Your task to perform on an android device: Open location settings Image 0: 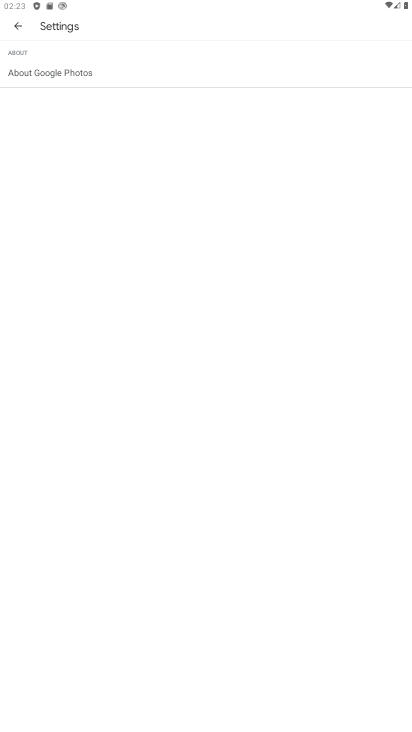
Step 0: press home button
Your task to perform on an android device: Open location settings Image 1: 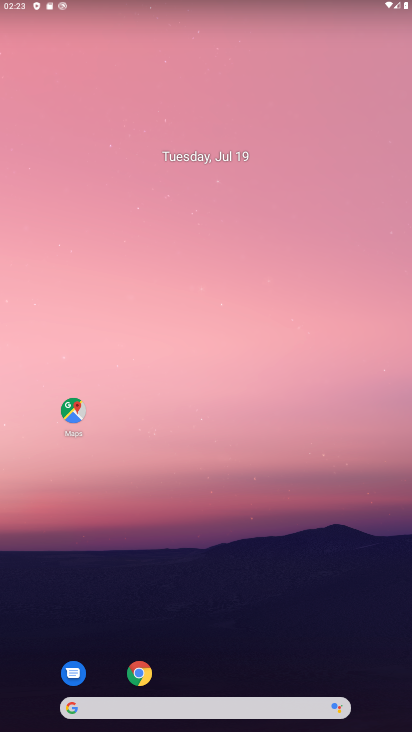
Step 1: drag from (202, 635) to (219, 218)
Your task to perform on an android device: Open location settings Image 2: 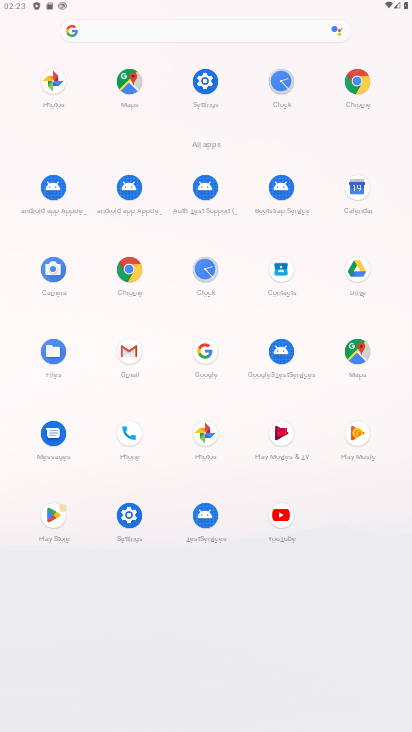
Step 2: click (132, 523)
Your task to perform on an android device: Open location settings Image 3: 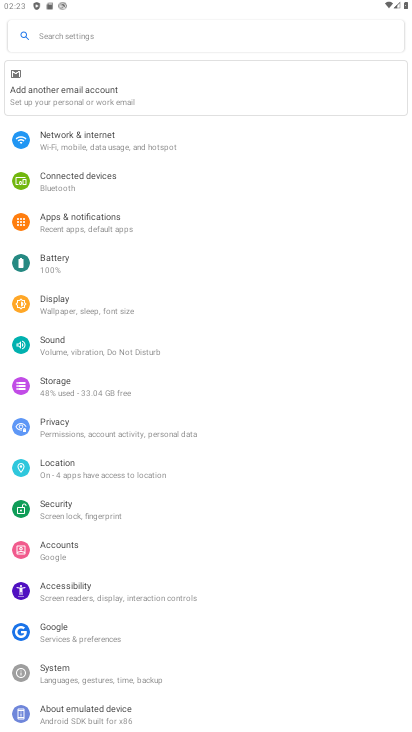
Step 3: click (89, 481)
Your task to perform on an android device: Open location settings Image 4: 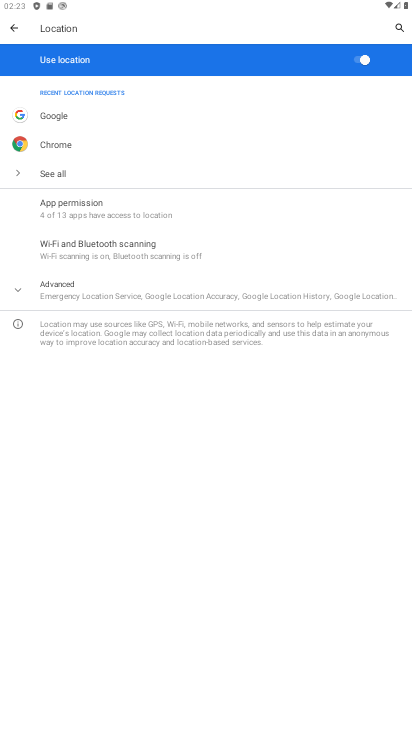
Step 4: task complete